Your task to perform on an android device: check the backup settings in the google photos Image 0: 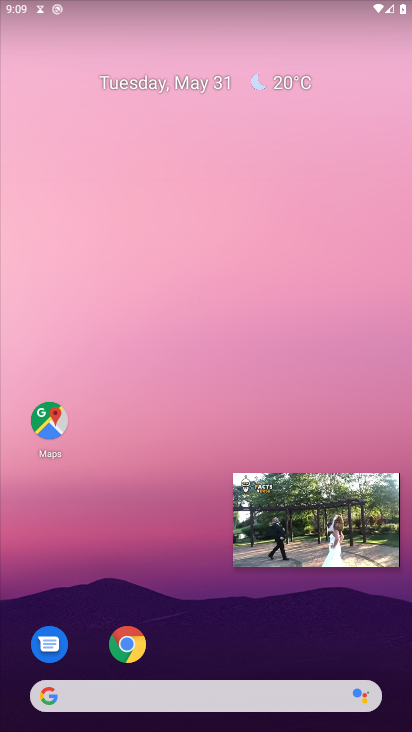
Step 0: press home button
Your task to perform on an android device: check the backup settings in the google photos Image 1: 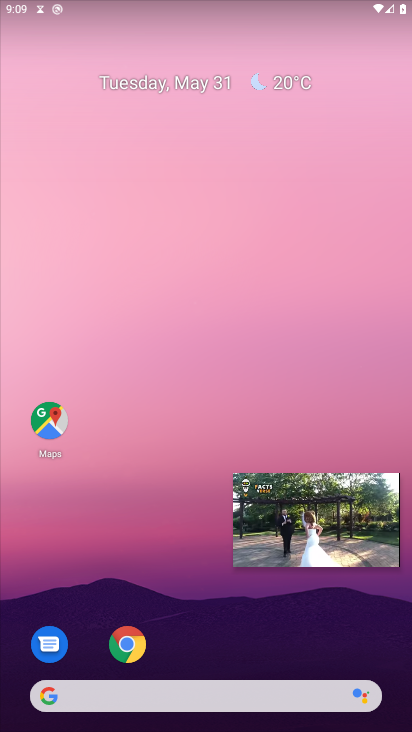
Step 1: click (334, 496)
Your task to perform on an android device: check the backup settings in the google photos Image 2: 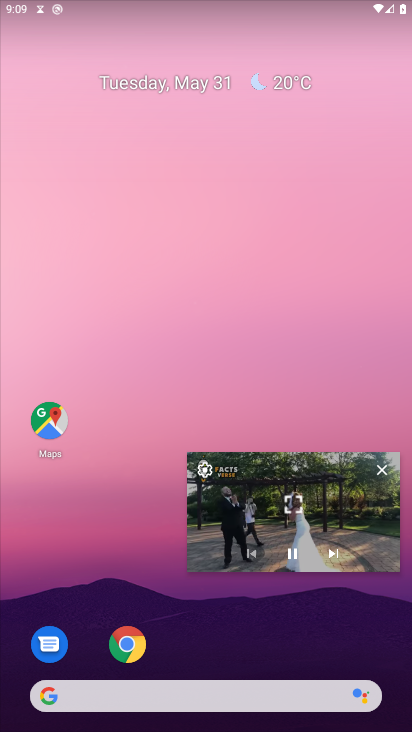
Step 2: click (382, 462)
Your task to perform on an android device: check the backup settings in the google photos Image 3: 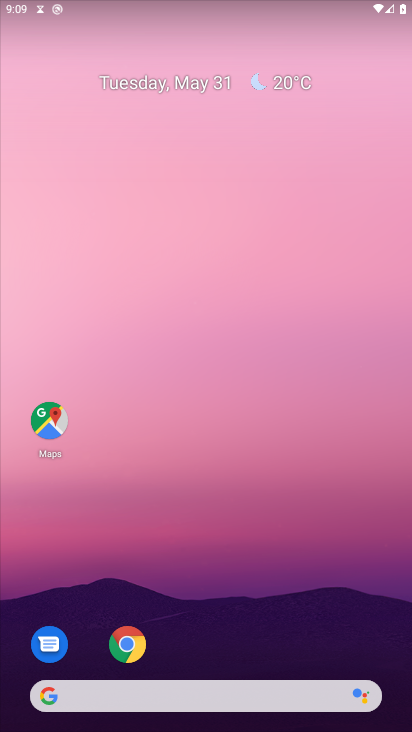
Step 3: drag from (206, 654) to (227, 66)
Your task to perform on an android device: check the backup settings in the google photos Image 4: 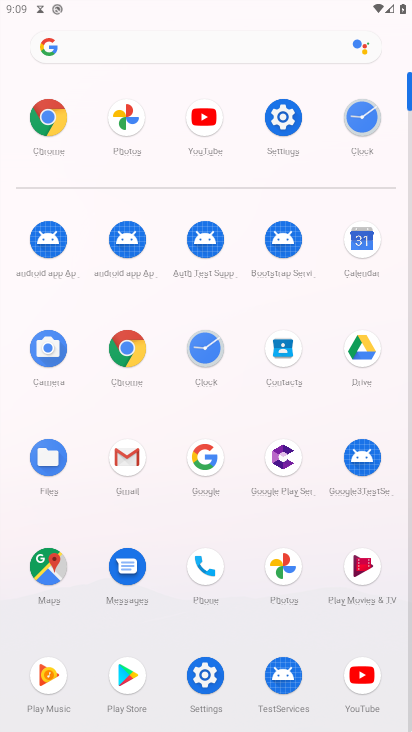
Step 4: click (281, 558)
Your task to perform on an android device: check the backup settings in the google photos Image 5: 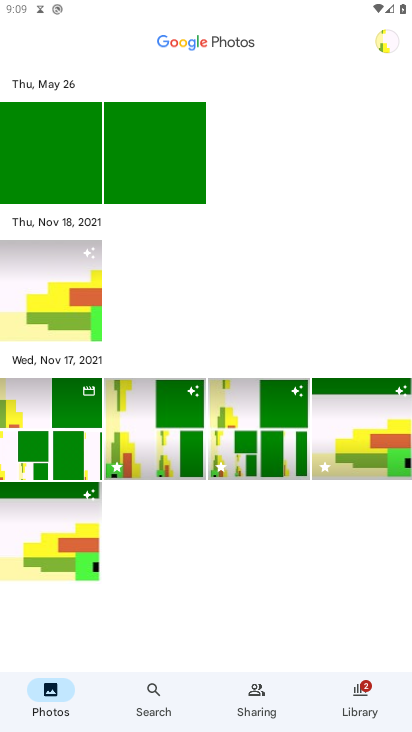
Step 5: click (388, 37)
Your task to perform on an android device: check the backup settings in the google photos Image 6: 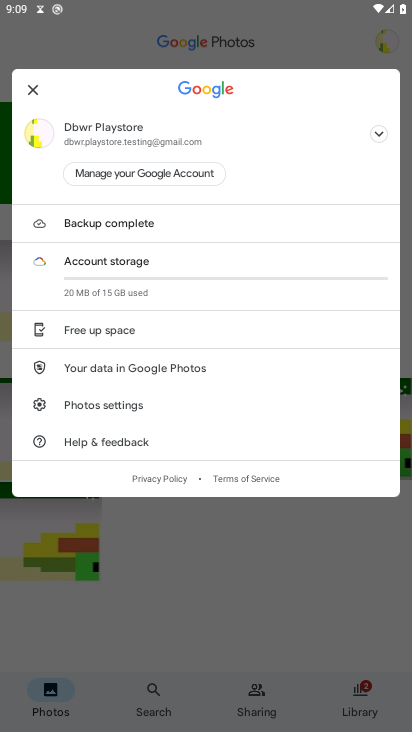
Step 6: click (148, 403)
Your task to perform on an android device: check the backup settings in the google photos Image 7: 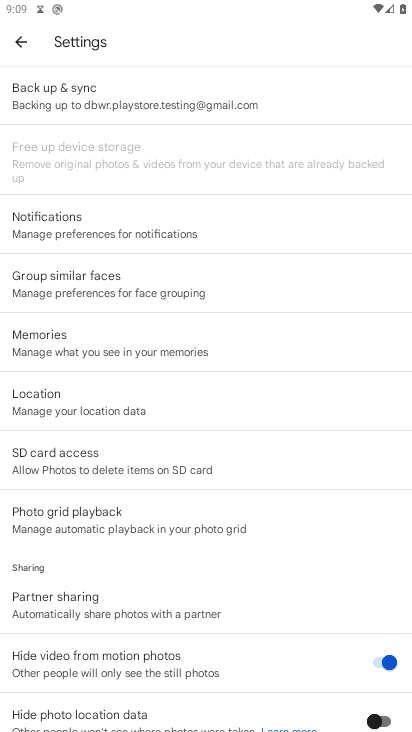
Step 7: click (140, 87)
Your task to perform on an android device: check the backup settings in the google photos Image 8: 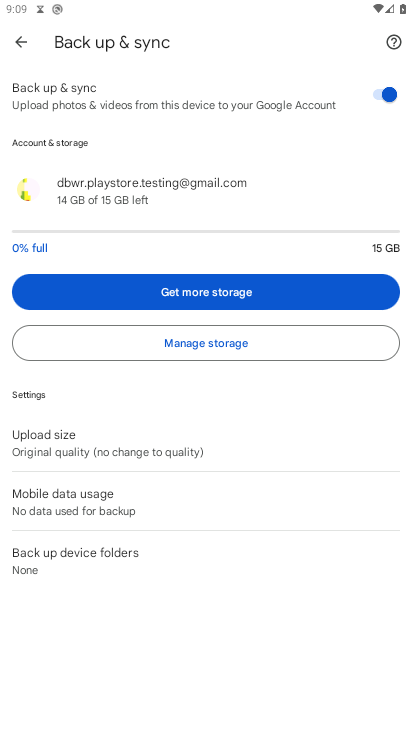
Step 8: task complete